Your task to perform on an android device: see creations saved in the google photos Image 0: 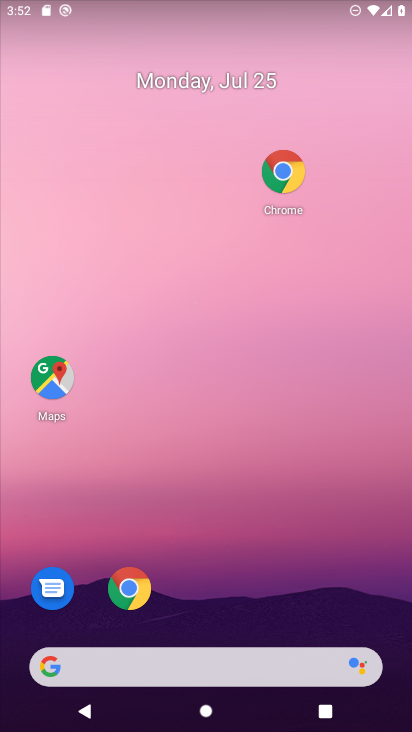
Step 0: drag from (275, 717) to (182, 186)
Your task to perform on an android device: see creations saved in the google photos Image 1: 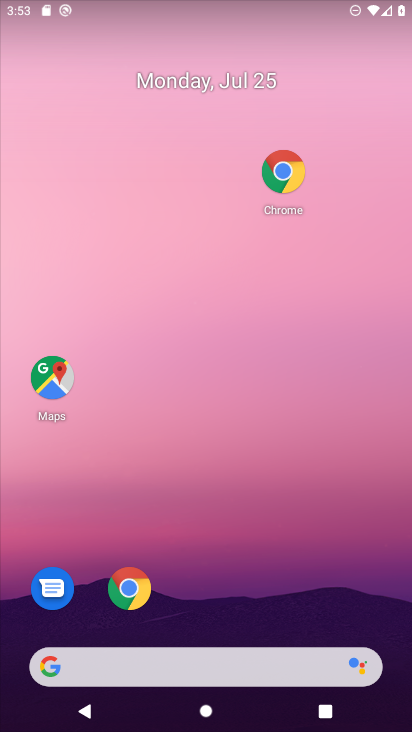
Step 1: drag from (225, 631) to (218, 253)
Your task to perform on an android device: see creations saved in the google photos Image 2: 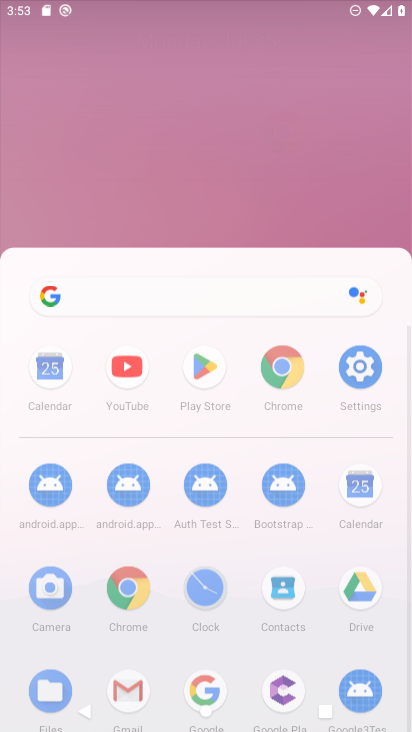
Step 2: drag from (280, 513) to (253, 280)
Your task to perform on an android device: see creations saved in the google photos Image 3: 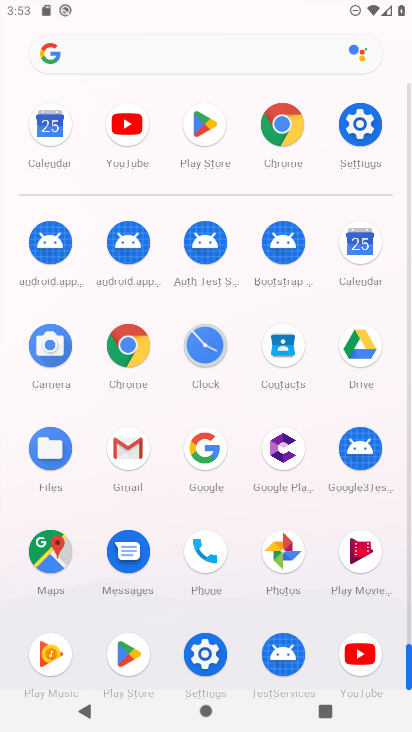
Step 3: click (276, 551)
Your task to perform on an android device: see creations saved in the google photos Image 4: 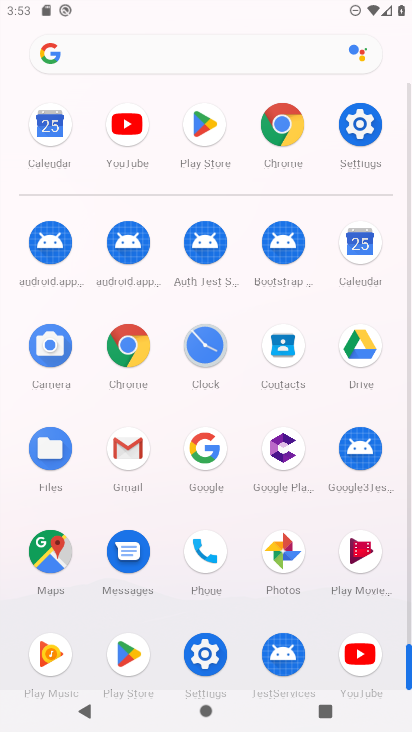
Step 4: click (276, 541)
Your task to perform on an android device: see creations saved in the google photos Image 5: 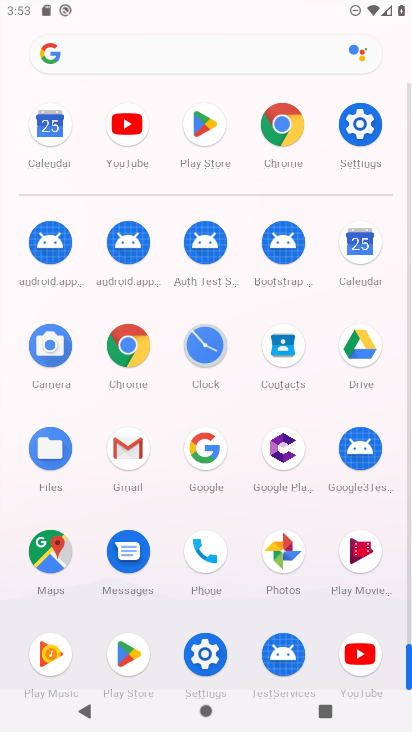
Step 5: click (278, 544)
Your task to perform on an android device: see creations saved in the google photos Image 6: 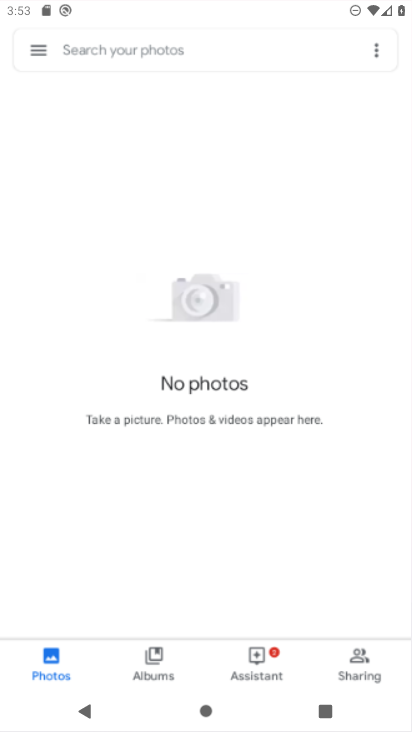
Step 6: click (283, 551)
Your task to perform on an android device: see creations saved in the google photos Image 7: 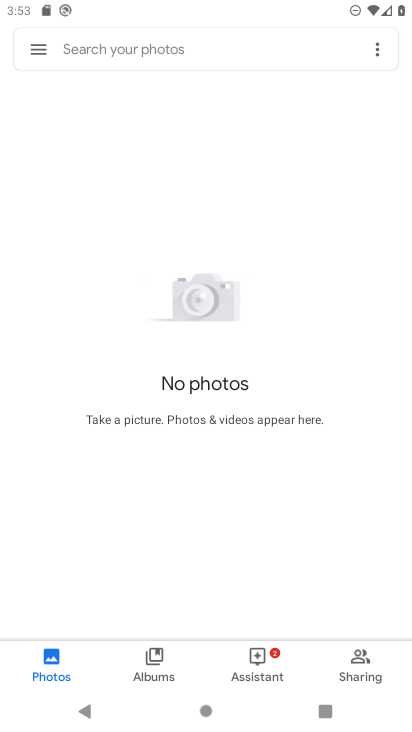
Step 7: drag from (190, 320) to (225, 215)
Your task to perform on an android device: see creations saved in the google photos Image 8: 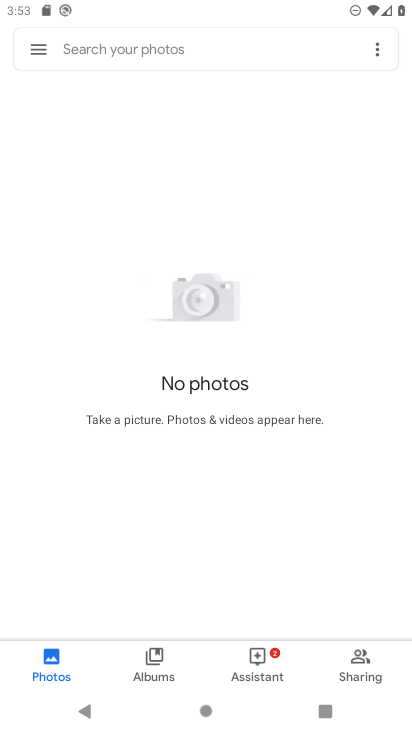
Step 8: drag from (263, 368) to (246, 431)
Your task to perform on an android device: see creations saved in the google photos Image 9: 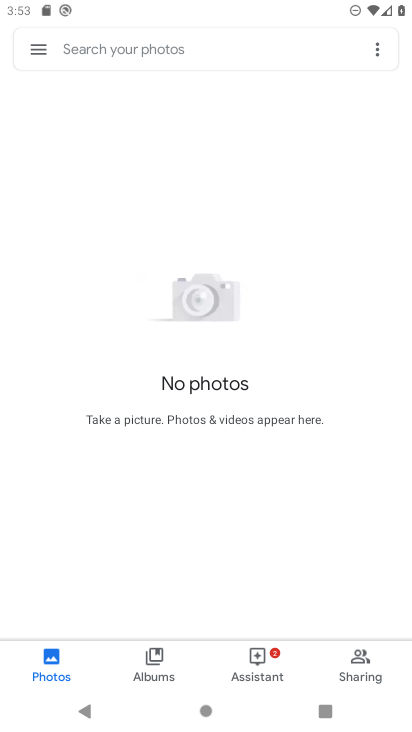
Step 9: click (246, 235)
Your task to perform on an android device: see creations saved in the google photos Image 10: 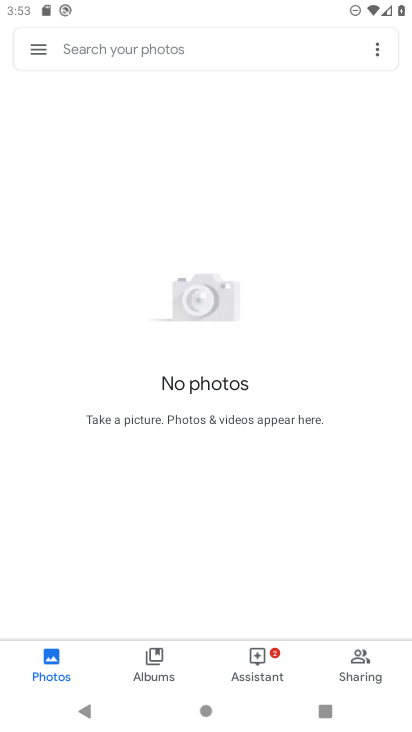
Step 10: click (55, 665)
Your task to perform on an android device: see creations saved in the google photos Image 11: 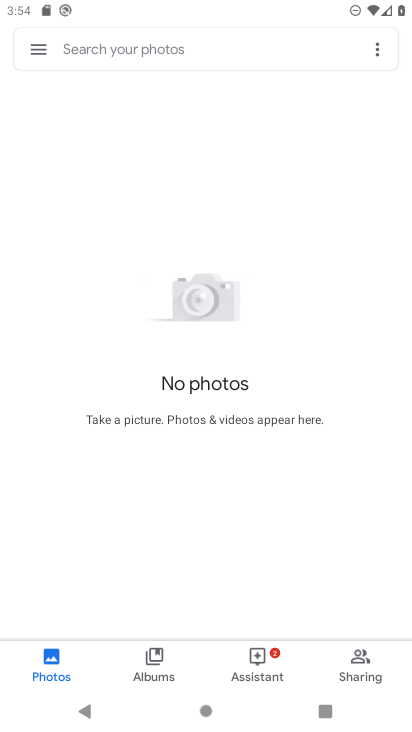
Step 11: task complete